Your task to perform on an android device: find which apps use the phone's location Image 0: 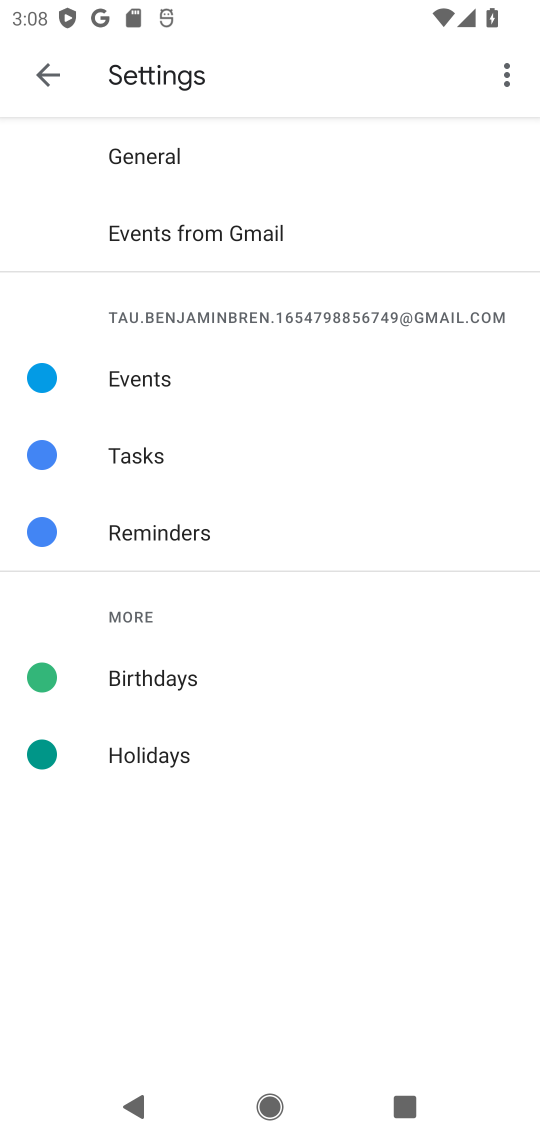
Step 0: press home button
Your task to perform on an android device: find which apps use the phone's location Image 1: 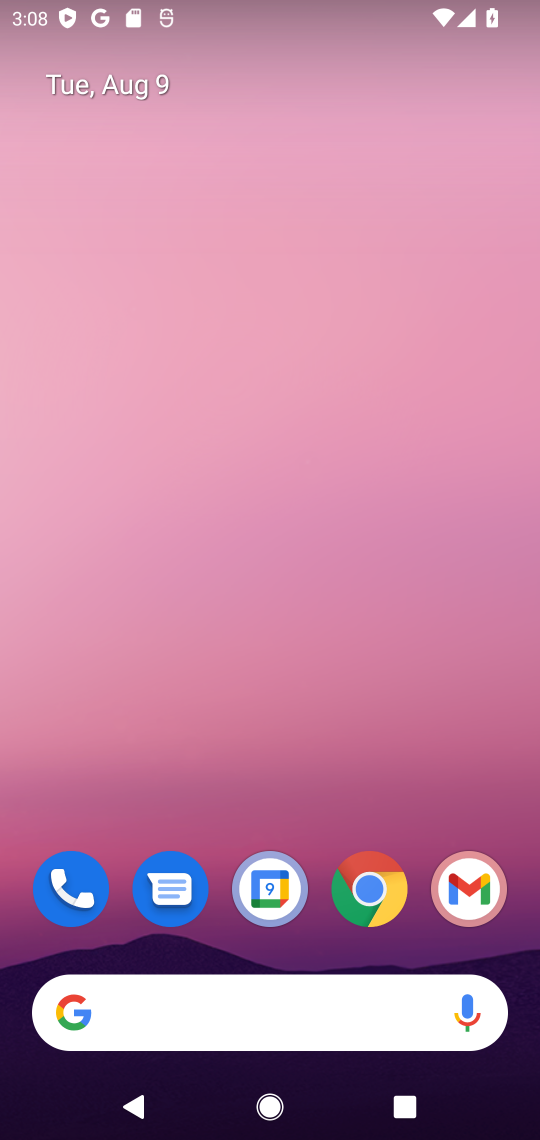
Step 1: drag from (305, 773) to (392, 0)
Your task to perform on an android device: find which apps use the phone's location Image 2: 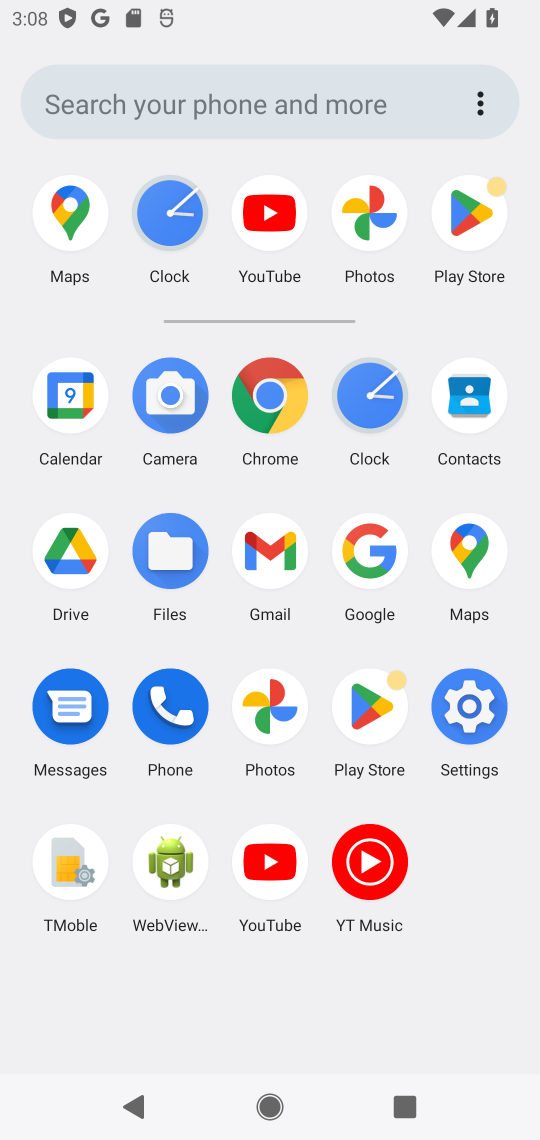
Step 2: click (462, 699)
Your task to perform on an android device: find which apps use the phone's location Image 3: 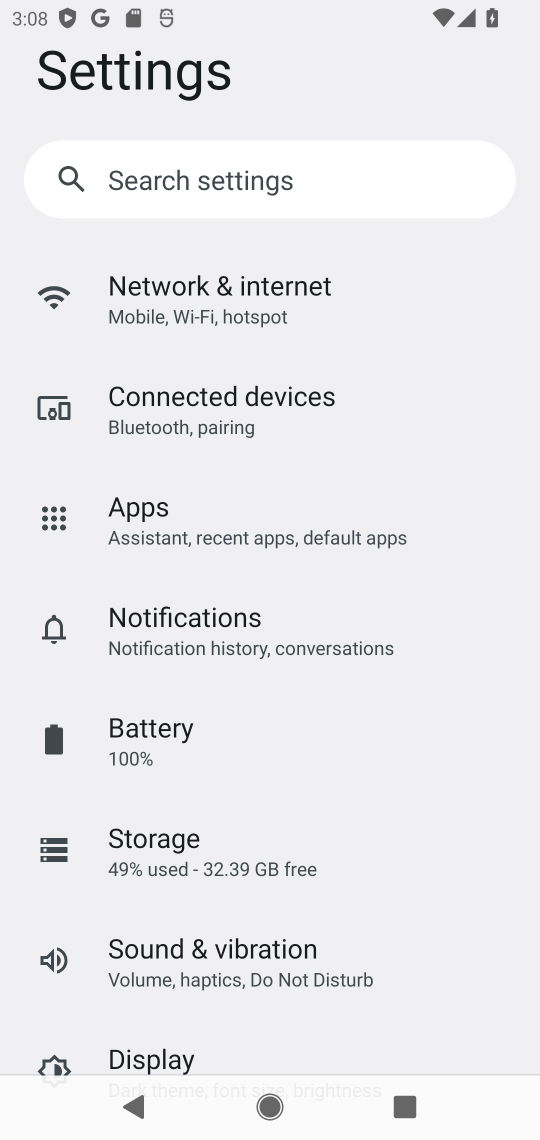
Step 3: drag from (291, 878) to (371, 85)
Your task to perform on an android device: find which apps use the phone's location Image 4: 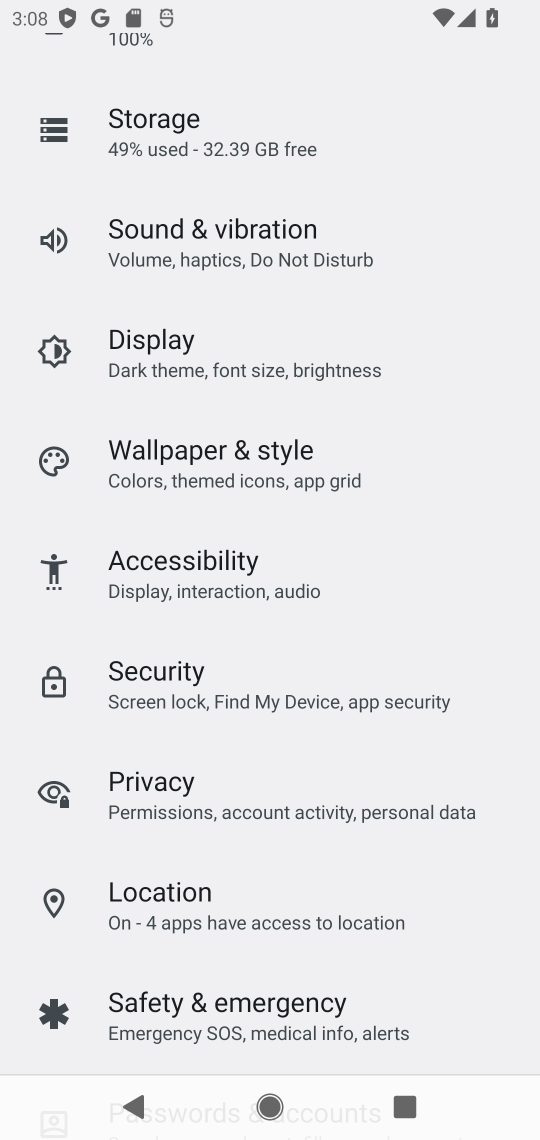
Step 4: click (320, 917)
Your task to perform on an android device: find which apps use the phone's location Image 5: 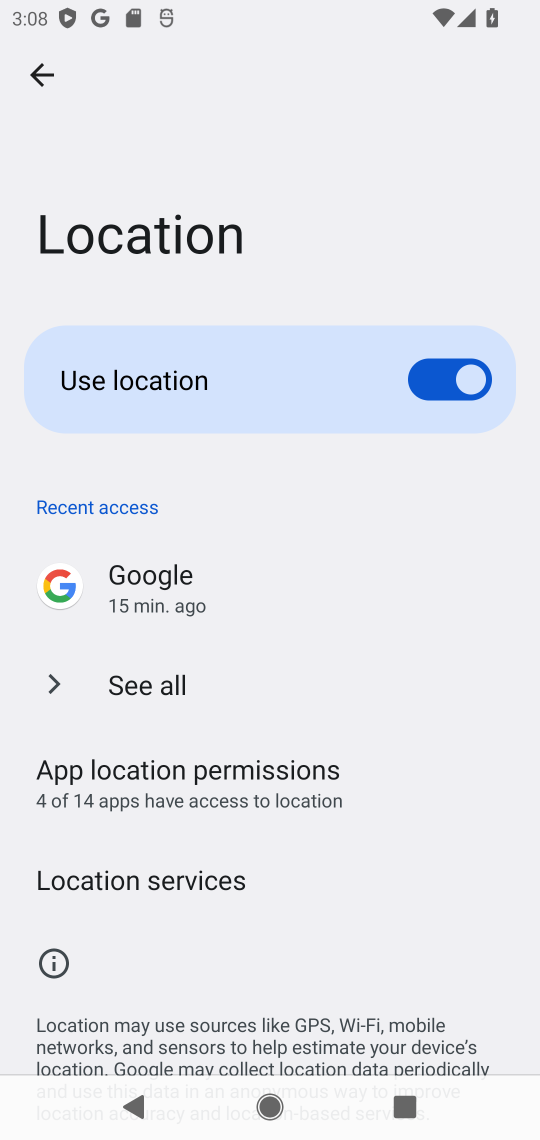
Step 5: click (278, 777)
Your task to perform on an android device: find which apps use the phone's location Image 6: 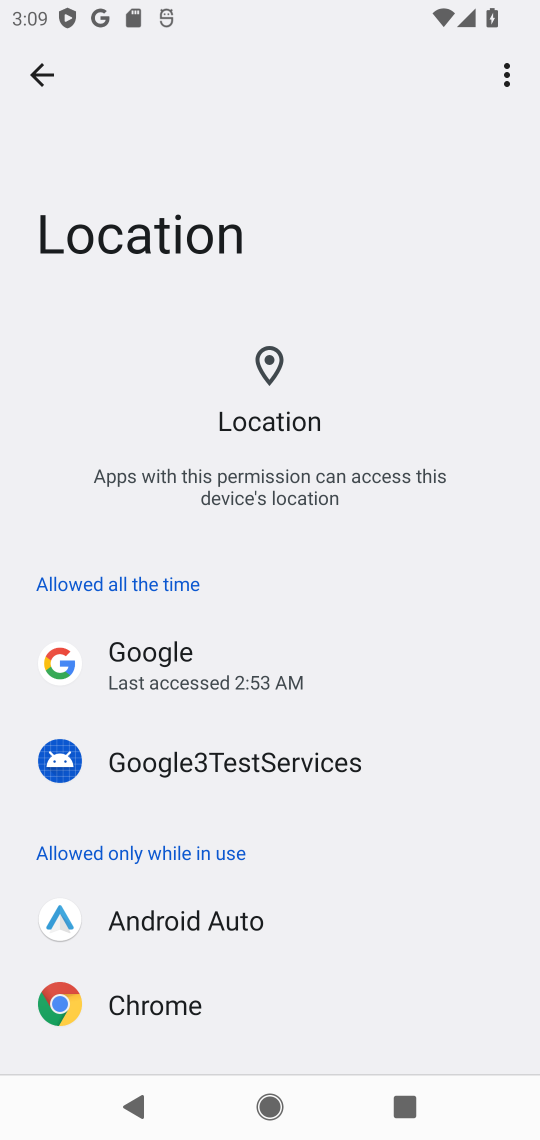
Step 6: task complete